Your task to perform on an android device: remove spam from my inbox in the gmail app Image 0: 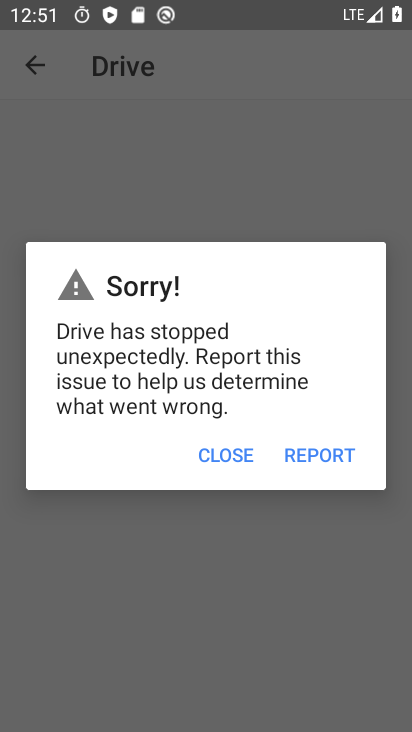
Step 0: drag from (177, 176) to (199, 369)
Your task to perform on an android device: remove spam from my inbox in the gmail app Image 1: 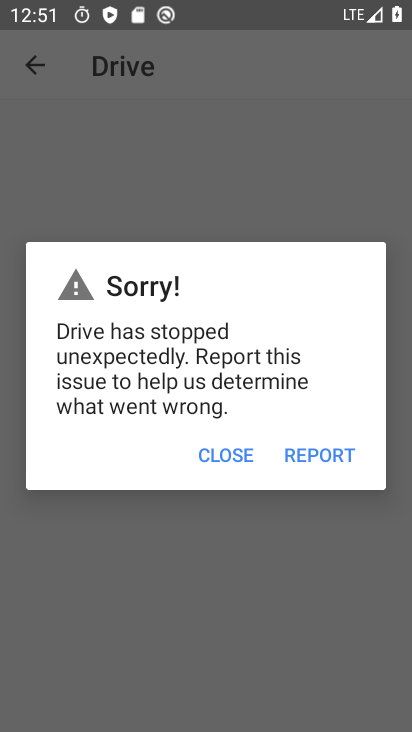
Step 1: press home button
Your task to perform on an android device: remove spam from my inbox in the gmail app Image 2: 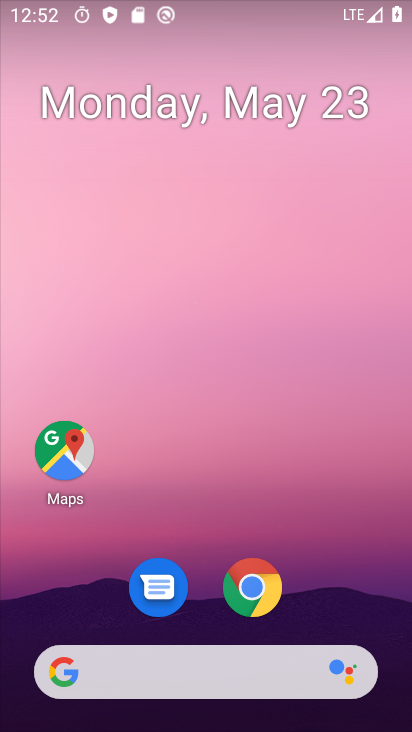
Step 2: drag from (209, 596) to (311, 67)
Your task to perform on an android device: remove spam from my inbox in the gmail app Image 3: 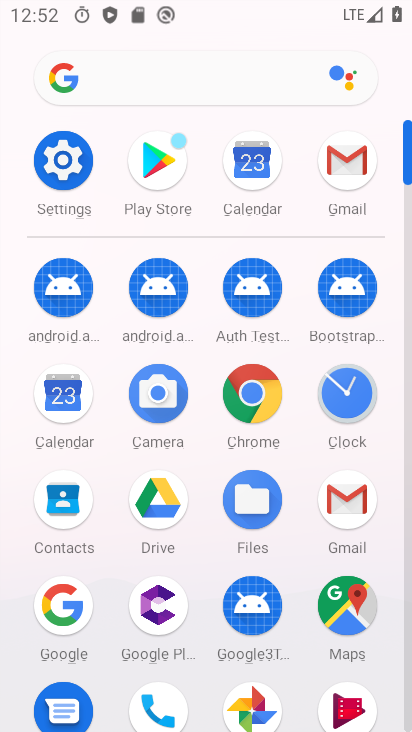
Step 3: click (343, 152)
Your task to perform on an android device: remove spam from my inbox in the gmail app Image 4: 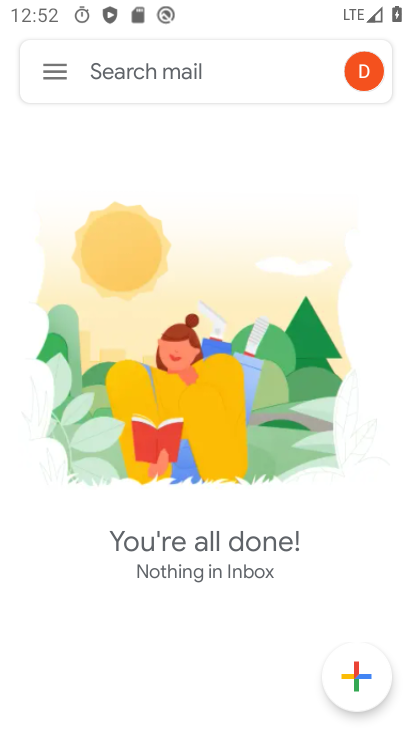
Step 4: click (49, 67)
Your task to perform on an android device: remove spam from my inbox in the gmail app Image 5: 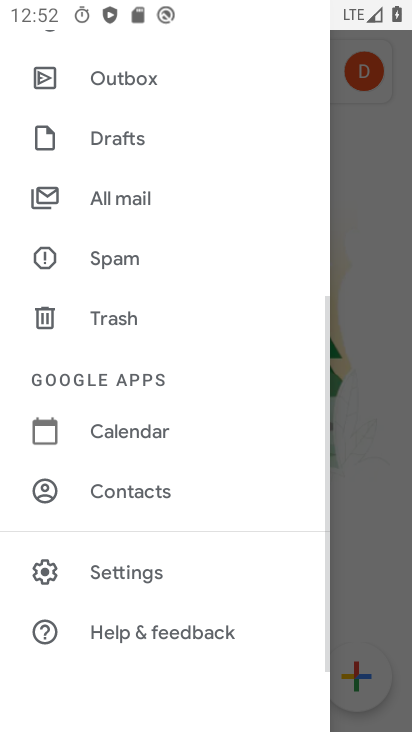
Step 5: click (150, 246)
Your task to perform on an android device: remove spam from my inbox in the gmail app Image 6: 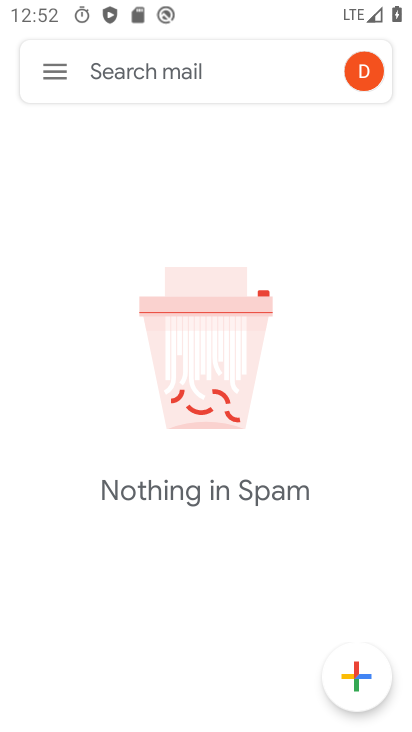
Step 6: task complete